Your task to perform on an android device: What is the recent news? Image 0: 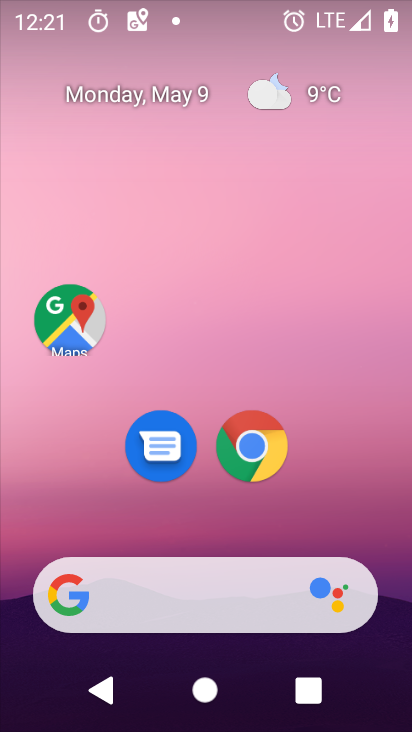
Step 0: drag from (1, 226) to (366, 334)
Your task to perform on an android device: What is the recent news? Image 1: 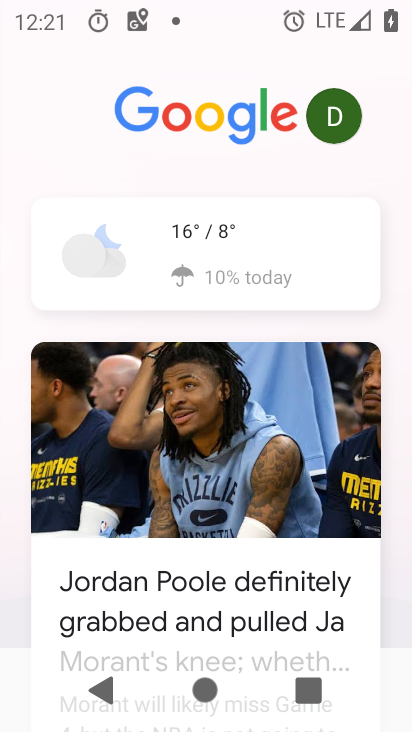
Step 1: task complete